Your task to perform on an android device: Go to wifi settings Image 0: 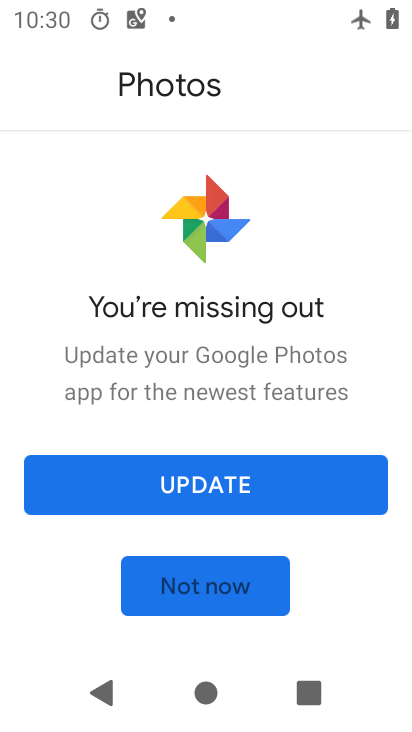
Step 0: press home button
Your task to perform on an android device: Go to wifi settings Image 1: 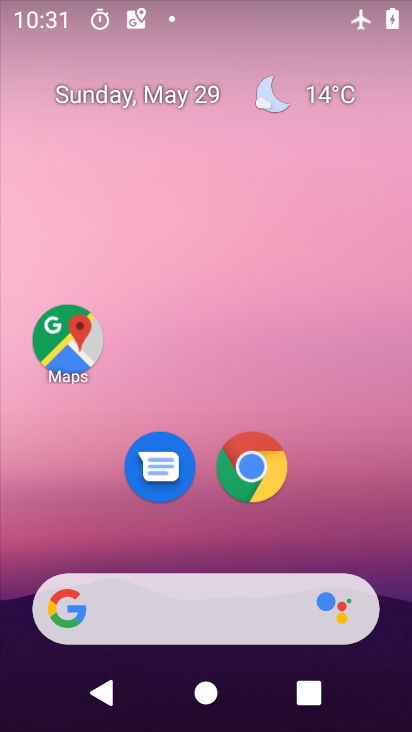
Step 1: drag from (205, 546) to (173, 193)
Your task to perform on an android device: Go to wifi settings Image 2: 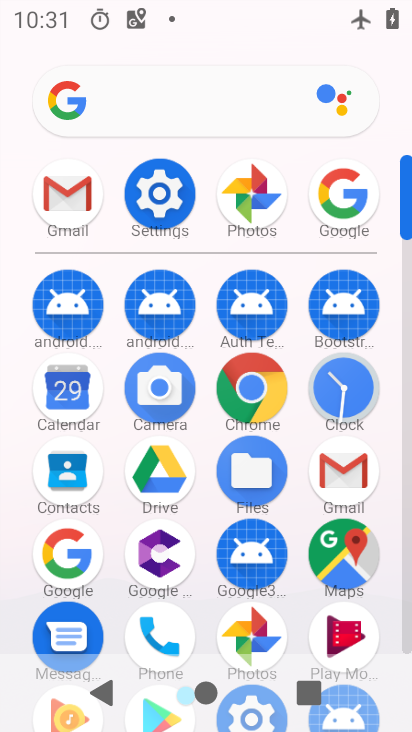
Step 2: click (173, 186)
Your task to perform on an android device: Go to wifi settings Image 3: 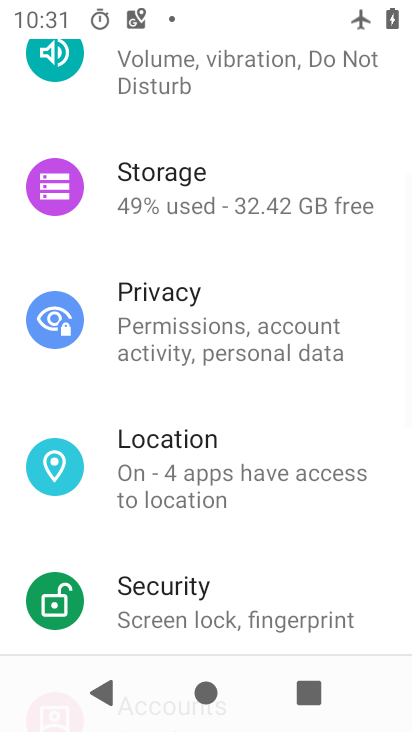
Step 3: click (219, 490)
Your task to perform on an android device: Go to wifi settings Image 4: 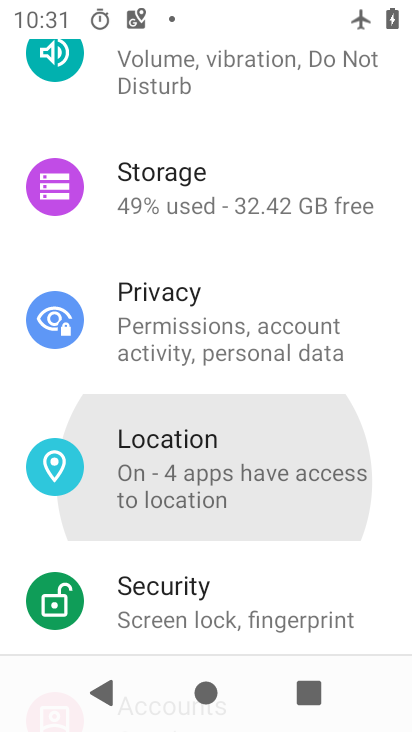
Step 4: drag from (196, 245) to (198, 531)
Your task to perform on an android device: Go to wifi settings Image 5: 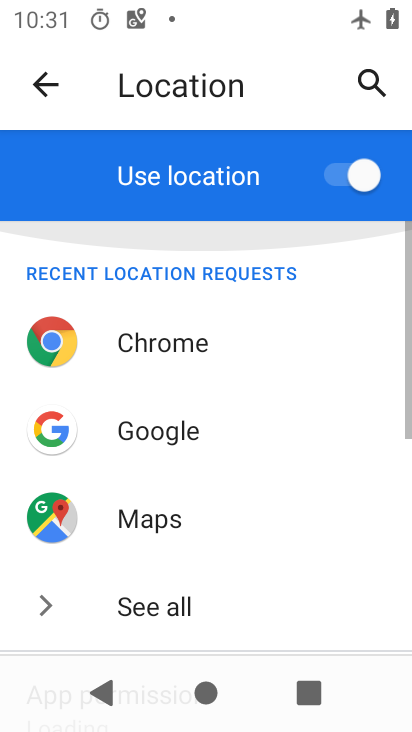
Step 5: drag from (180, 211) to (210, 455)
Your task to perform on an android device: Go to wifi settings Image 6: 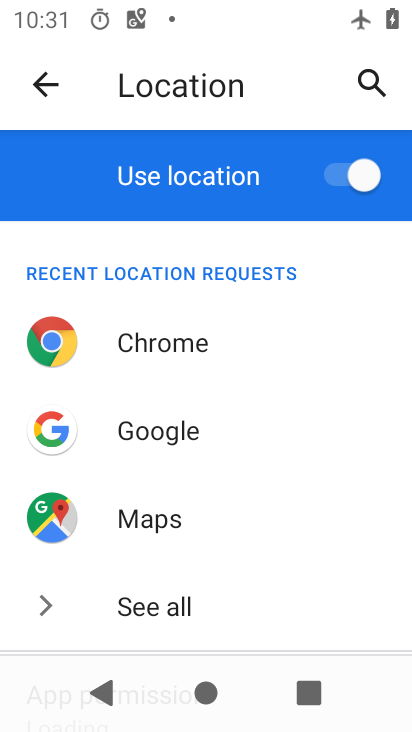
Step 6: drag from (228, 507) to (198, 172)
Your task to perform on an android device: Go to wifi settings Image 7: 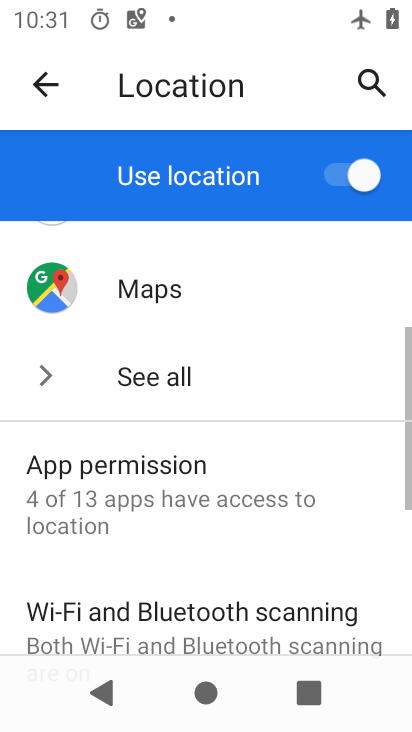
Step 7: drag from (201, 475) to (190, 232)
Your task to perform on an android device: Go to wifi settings Image 8: 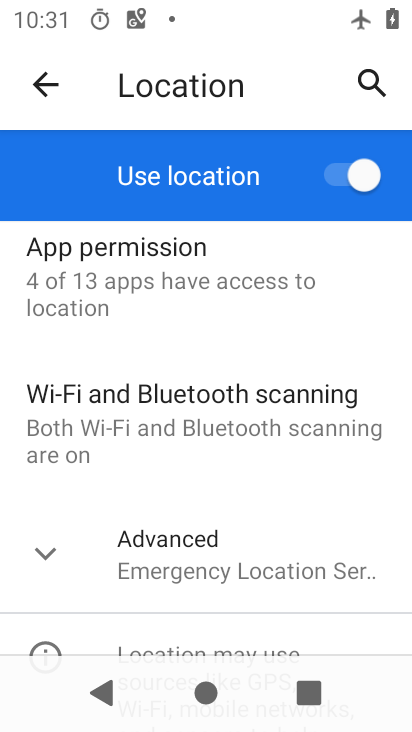
Step 8: drag from (134, 489) to (113, 247)
Your task to perform on an android device: Go to wifi settings Image 9: 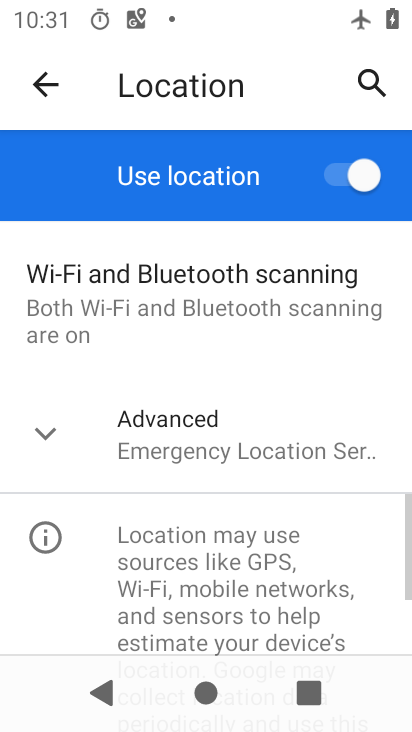
Step 9: click (44, 86)
Your task to perform on an android device: Go to wifi settings Image 10: 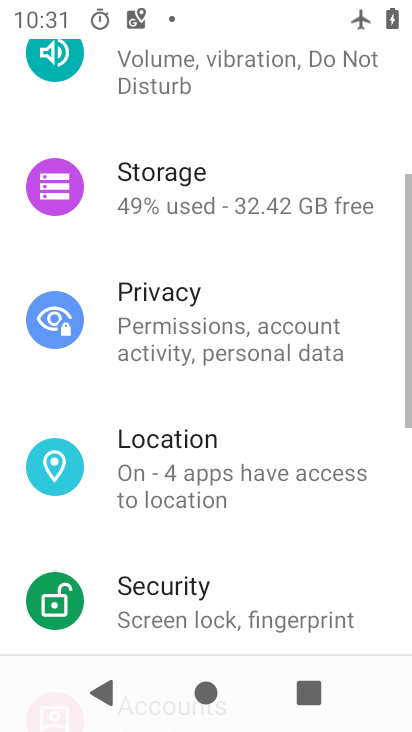
Step 10: drag from (235, 173) to (250, 533)
Your task to perform on an android device: Go to wifi settings Image 11: 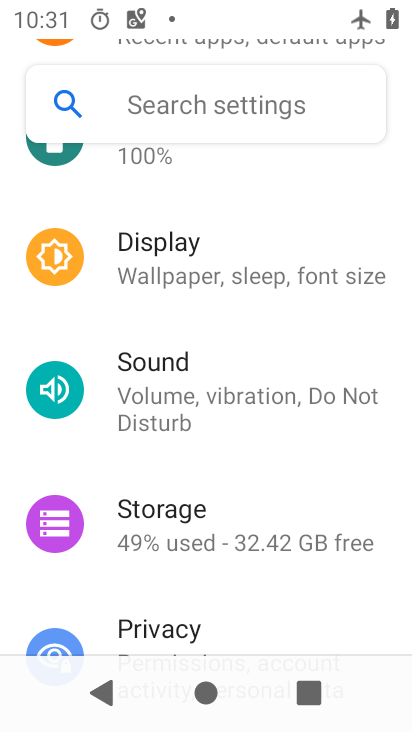
Step 11: drag from (207, 247) to (207, 592)
Your task to perform on an android device: Go to wifi settings Image 12: 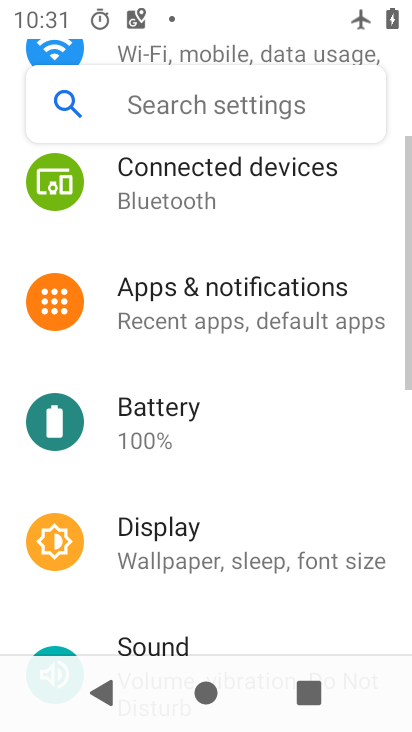
Step 12: drag from (176, 255) to (182, 602)
Your task to perform on an android device: Go to wifi settings Image 13: 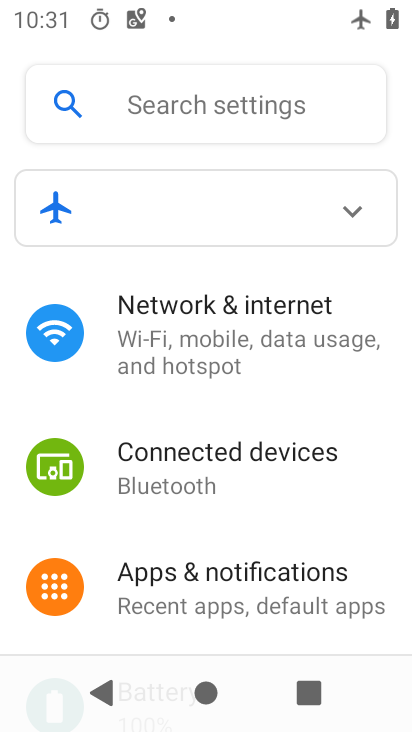
Step 13: click (183, 299)
Your task to perform on an android device: Go to wifi settings Image 14: 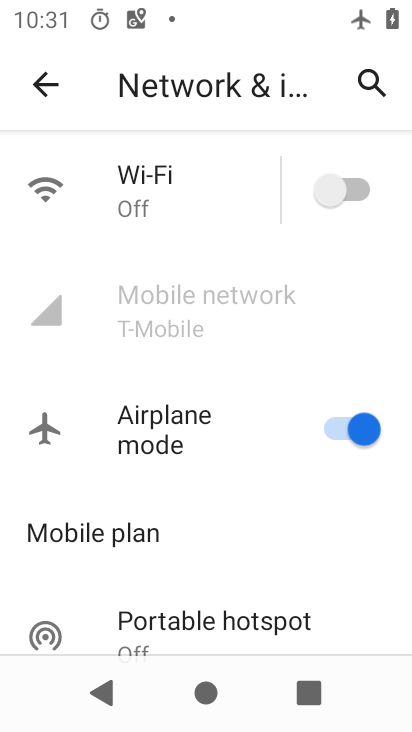
Step 14: click (157, 176)
Your task to perform on an android device: Go to wifi settings Image 15: 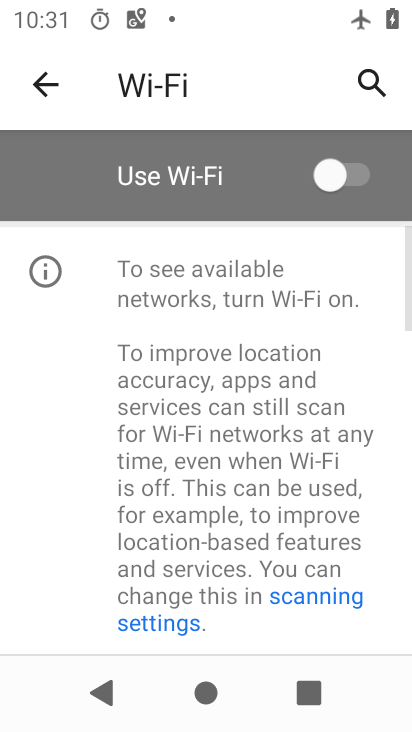
Step 15: task complete